Your task to perform on an android device: move an email to a new category in the gmail app Image 0: 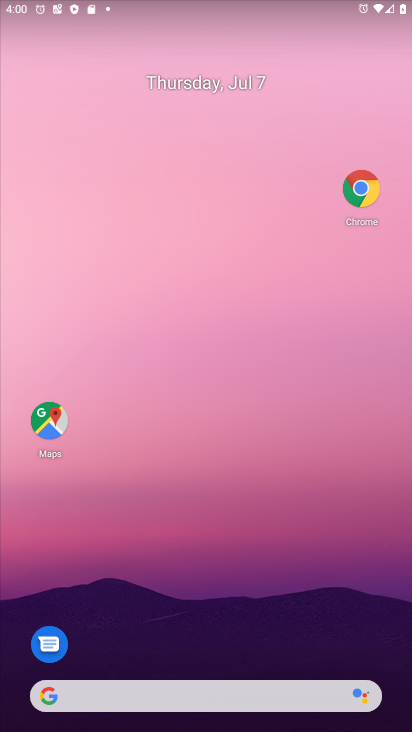
Step 0: press home button
Your task to perform on an android device: move an email to a new category in the gmail app Image 1: 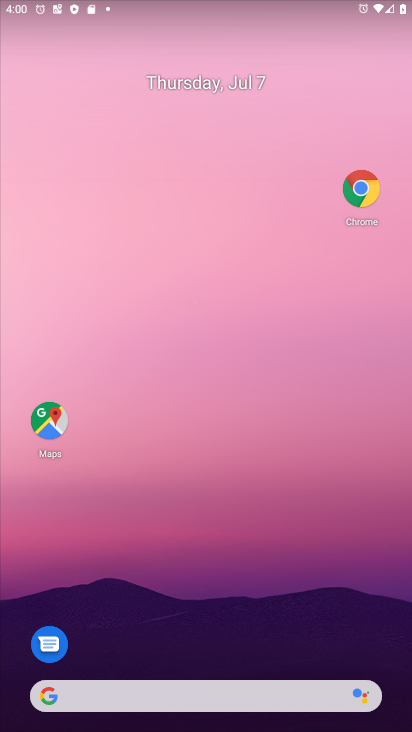
Step 1: drag from (199, 616) to (170, 150)
Your task to perform on an android device: move an email to a new category in the gmail app Image 2: 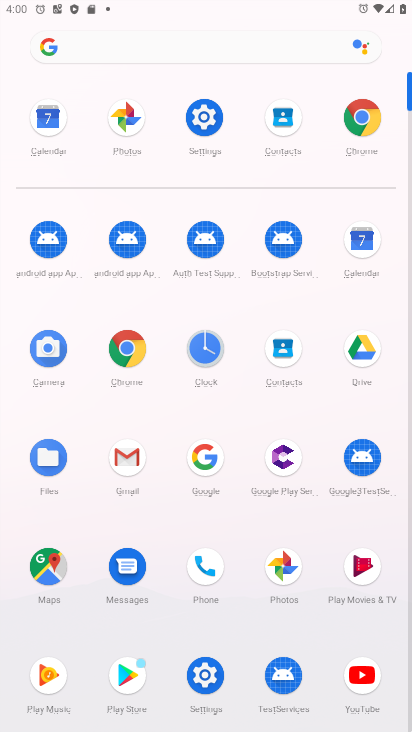
Step 2: click (133, 459)
Your task to perform on an android device: move an email to a new category in the gmail app Image 3: 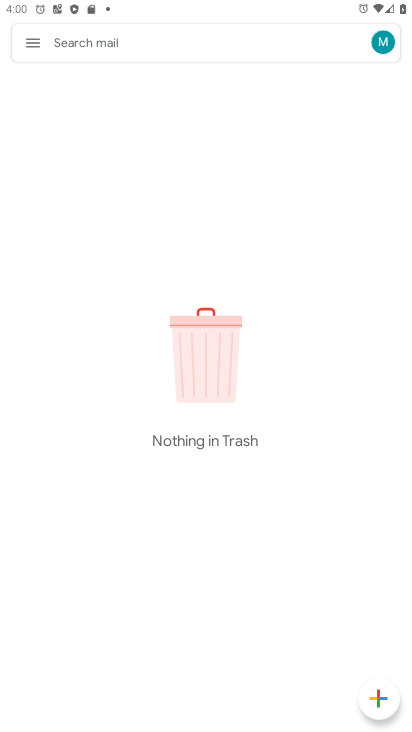
Step 3: task complete